Your task to perform on an android device: Open battery settings Image 0: 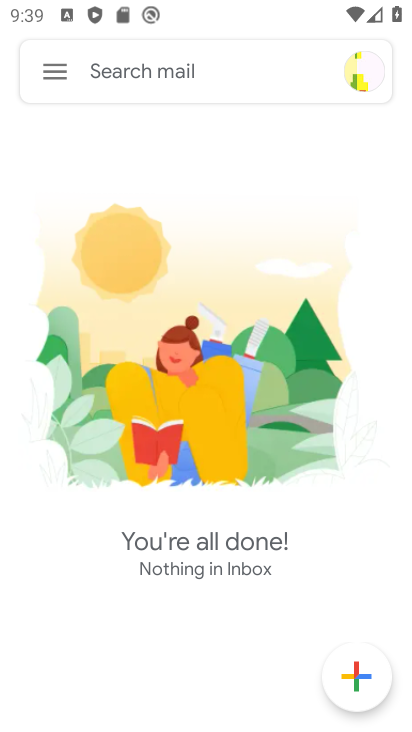
Step 0: press home button
Your task to perform on an android device: Open battery settings Image 1: 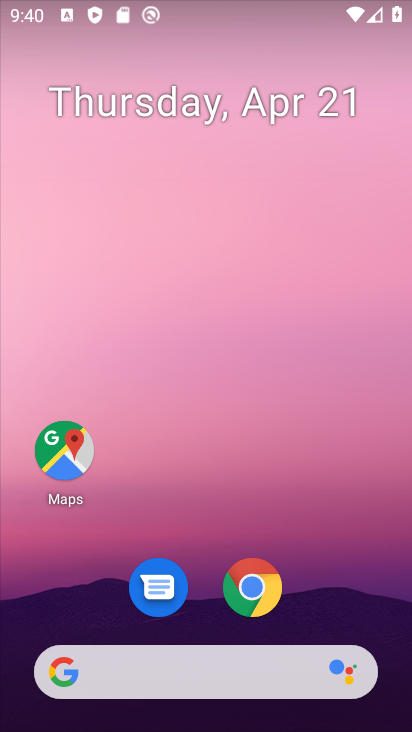
Step 1: drag from (361, 231) to (385, 191)
Your task to perform on an android device: Open battery settings Image 2: 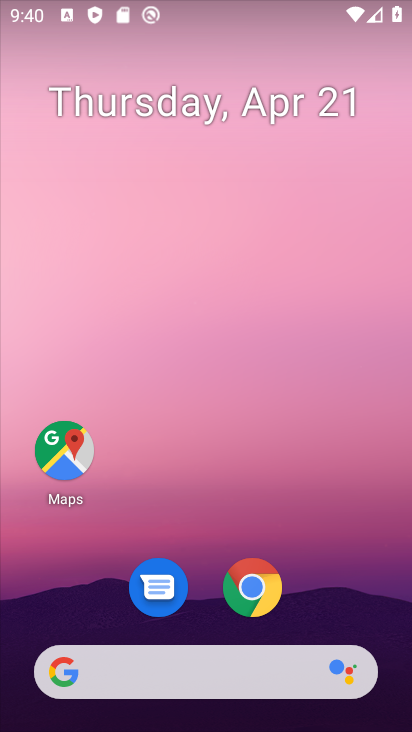
Step 2: drag from (2, 622) to (342, 128)
Your task to perform on an android device: Open battery settings Image 3: 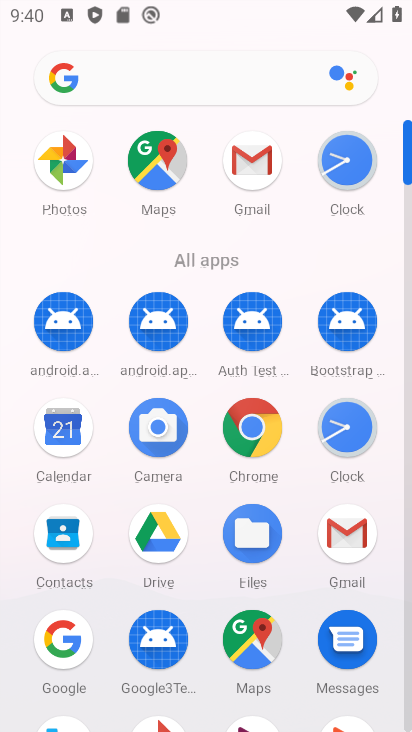
Step 3: drag from (38, 684) to (318, 218)
Your task to perform on an android device: Open battery settings Image 4: 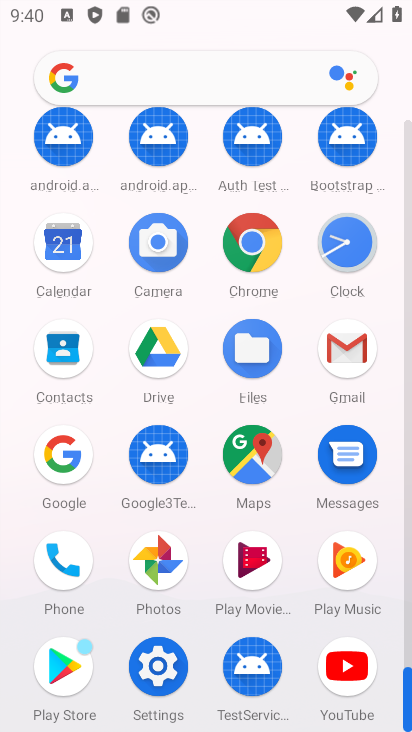
Step 4: click (147, 666)
Your task to perform on an android device: Open battery settings Image 5: 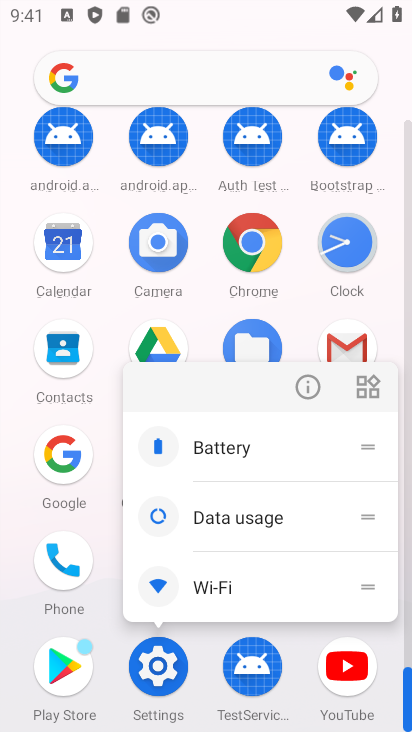
Step 5: click (233, 447)
Your task to perform on an android device: Open battery settings Image 6: 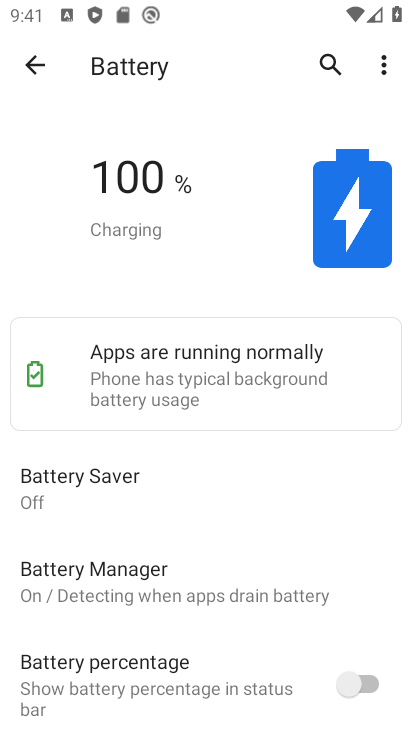
Step 6: task complete